Your task to perform on an android device: Open Youtube and go to the subscriptions tab Image 0: 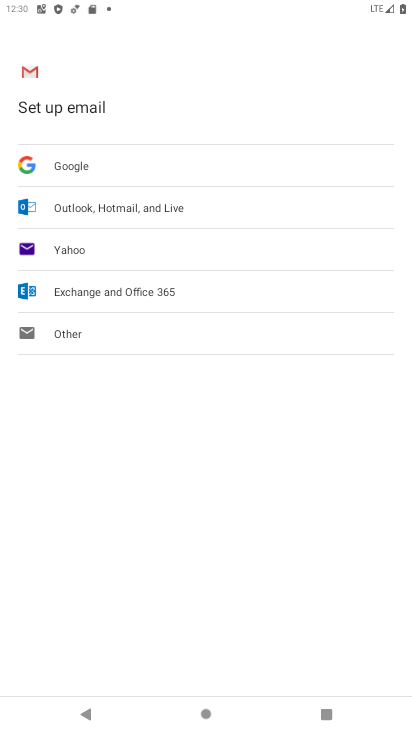
Step 0: press home button
Your task to perform on an android device: Open Youtube and go to the subscriptions tab Image 1: 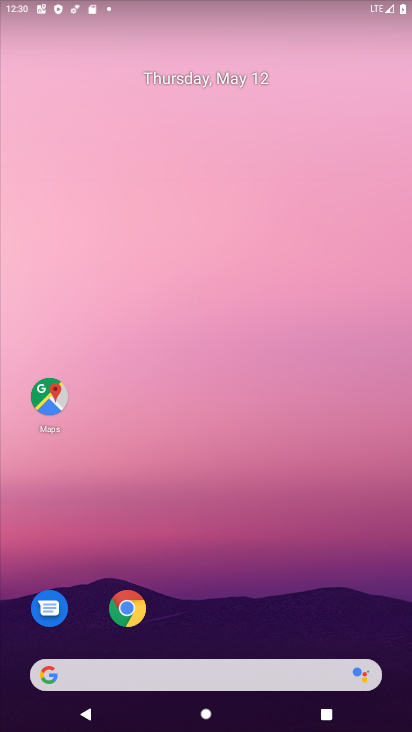
Step 1: drag from (258, 633) to (241, 19)
Your task to perform on an android device: Open Youtube and go to the subscriptions tab Image 2: 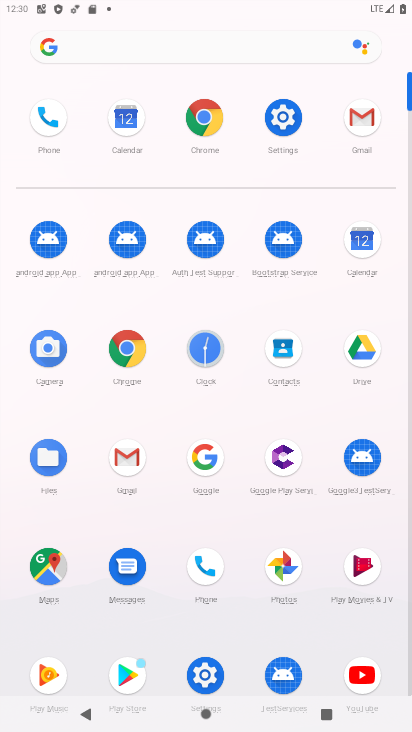
Step 2: click (371, 678)
Your task to perform on an android device: Open Youtube and go to the subscriptions tab Image 3: 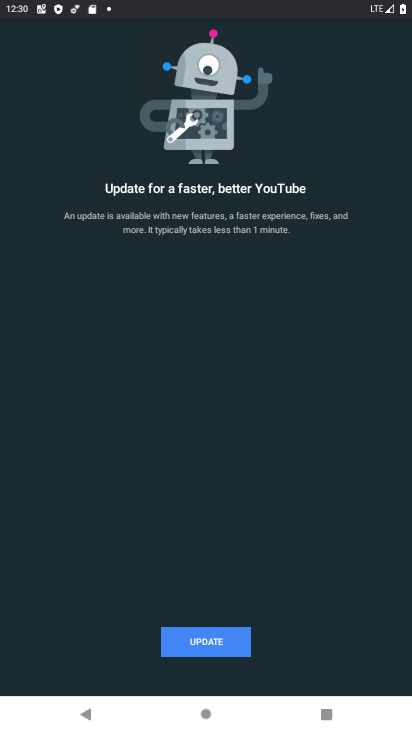
Step 3: click (217, 643)
Your task to perform on an android device: Open Youtube and go to the subscriptions tab Image 4: 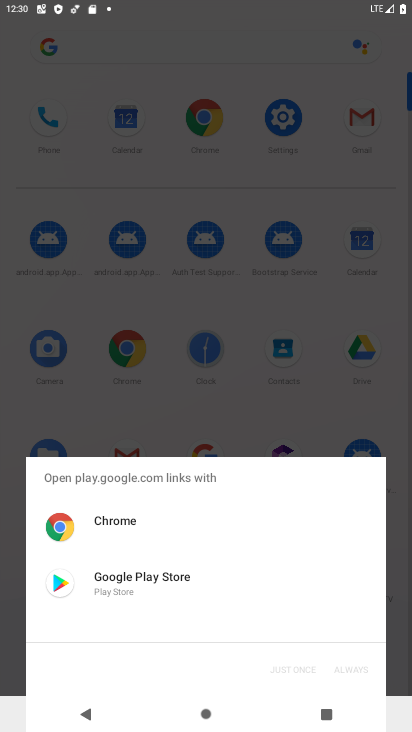
Step 4: click (134, 593)
Your task to perform on an android device: Open Youtube and go to the subscriptions tab Image 5: 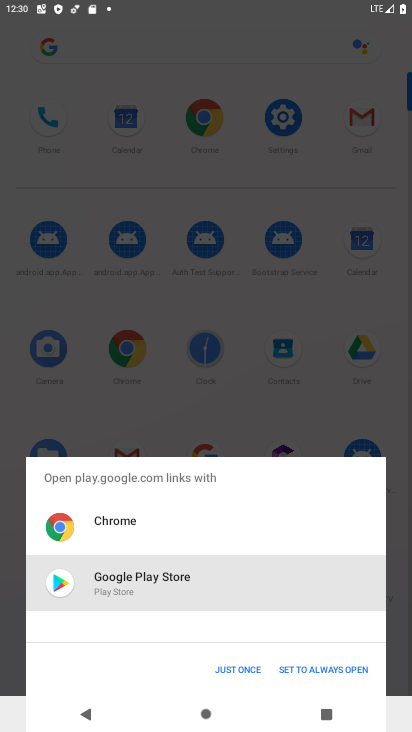
Step 5: click (228, 674)
Your task to perform on an android device: Open Youtube and go to the subscriptions tab Image 6: 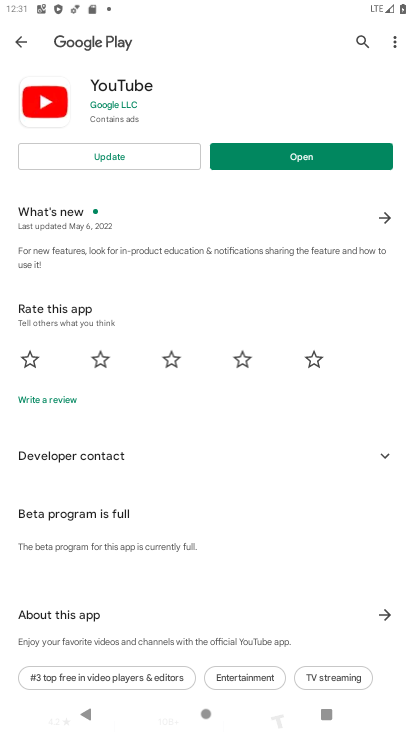
Step 6: click (130, 158)
Your task to perform on an android device: Open Youtube and go to the subscriptions tab Image 7: 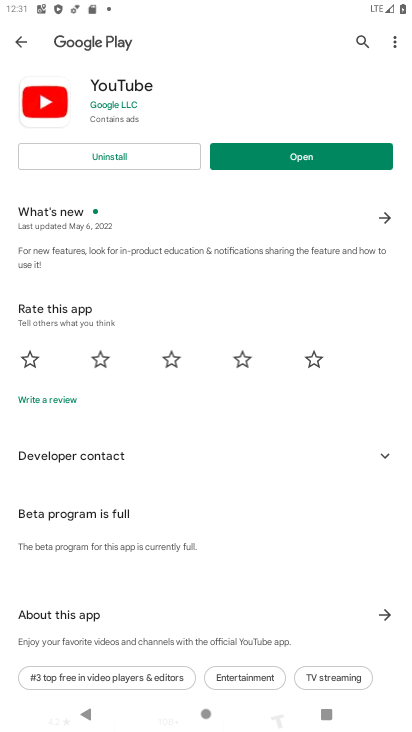
Step 7: click (272, 169)
Your task to perform on an android device: Open Youtube and go to the subscriptions tab Image 8: 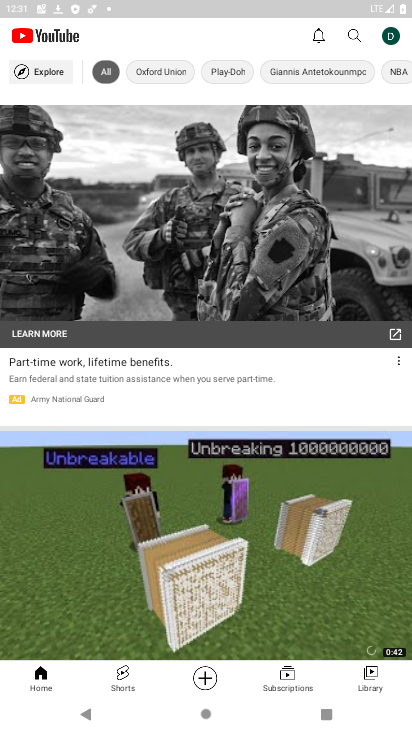
Step 8: click (281, 690)
Your task to perform on an android device: Open Youtube and go to the subscriptions tab Image 9: 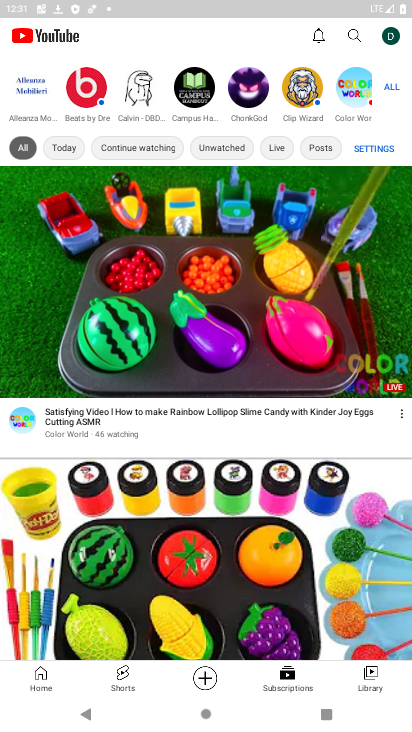
Step 9: task complete